Your task to perform on an android device: Go to battery settings Image 0: 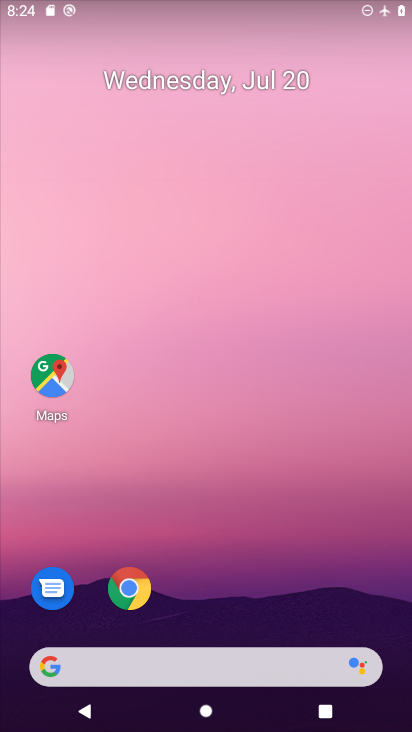
Step 0: drag from (43, 637) to (244, 117)
Your task to perform on an android device: Go to battery settings Image 1: 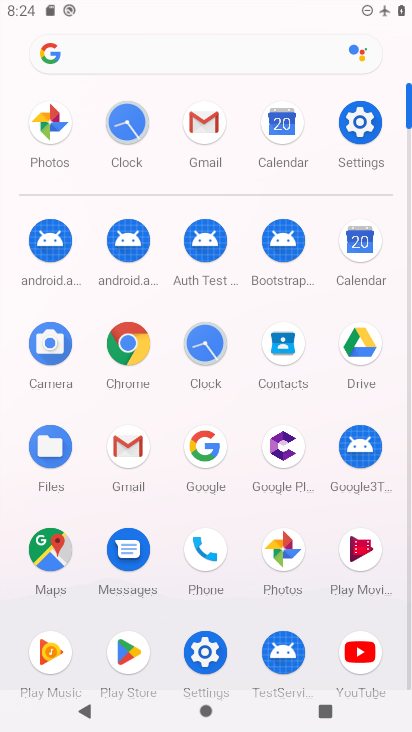
Step 1: click (206, 651)
Your task to perform on an android device: Go to battery settings Image 2: 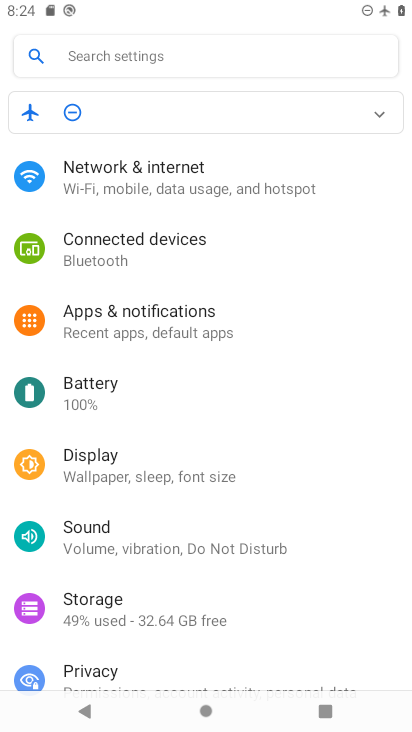
Step 2: click (105, 396)
Your task to perform on an android device: Go to battery settings Image 3: 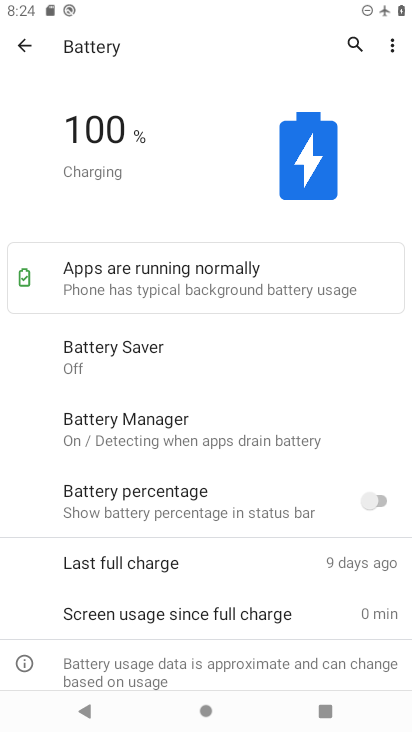
Step 3: task complete